Your task to perform on an android device: allow cookies in the chrome app Image 0: 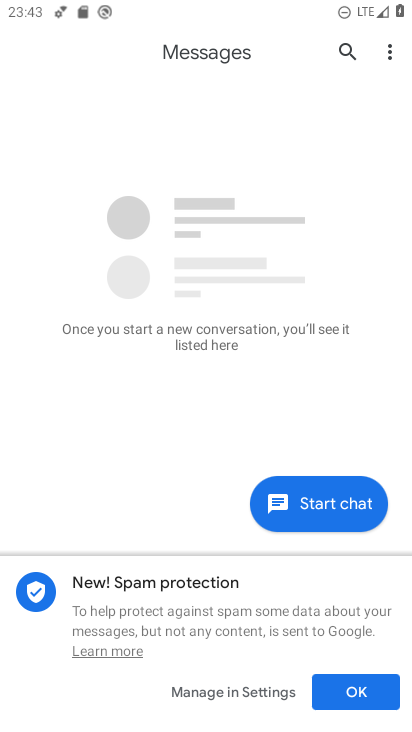
Step 0: press home button
Your task to perform on an android device: allow cookies in the chrome app Image 1: 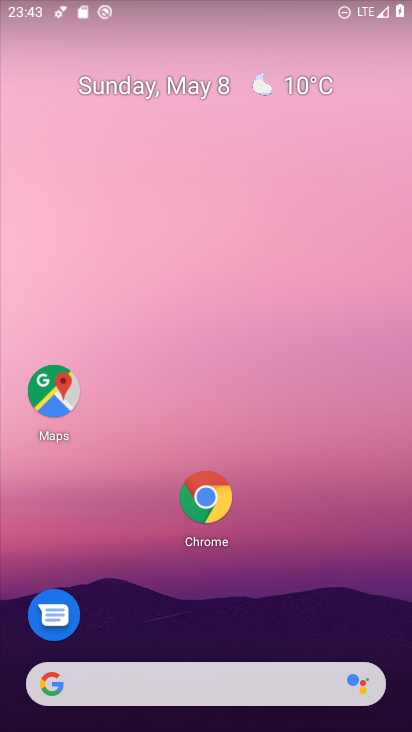
Step 1: drag from (349, 582) to (255, 72)
Your task to perform on an android device: allow cookies in the chrome app Image 2: 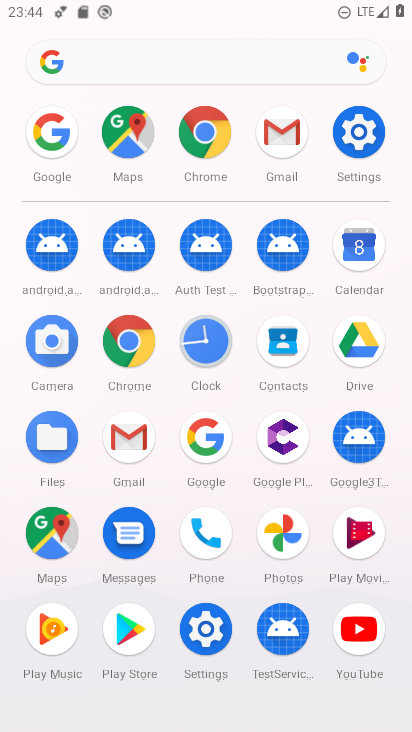
Step 2: click (208, 137)
Your task to perform on an android device: allow cookies in the chrome app Image 3: 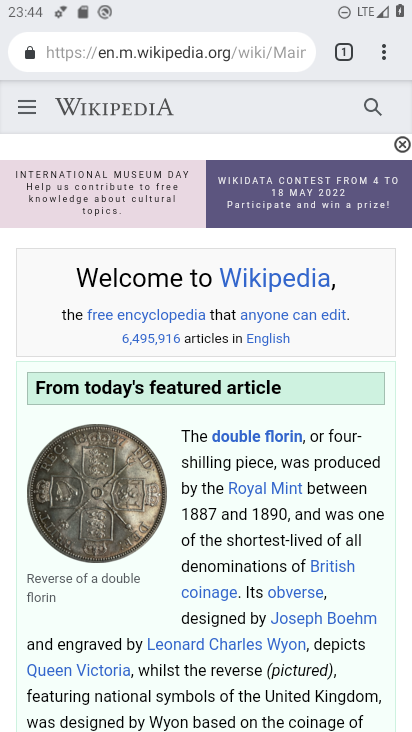
Step 3: drag from (376, 49) to (195, 635)
Your task to perform on an android device: allow cookies in the chrome app Image 4: 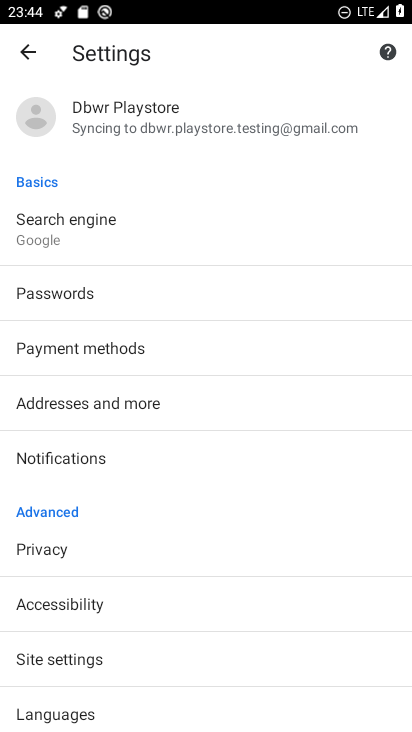
Step 4: click (101, 654)
Your task to perform on an android device: allow cookies in the chrome app Image 5: 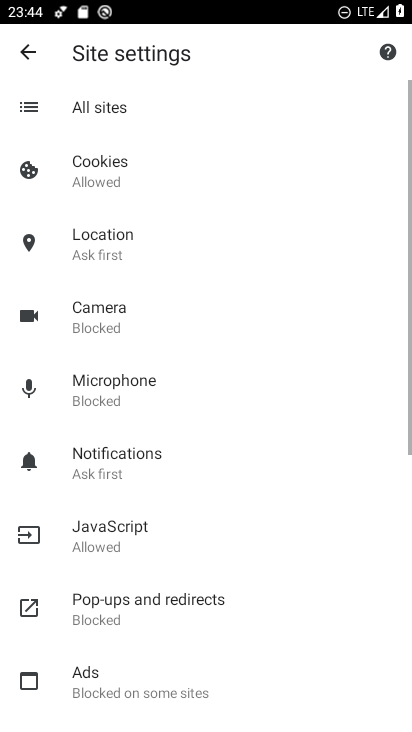
Step 5: click (146, 176)
Your task to perform on an android device: allow cookies in the chrome app Image 6: 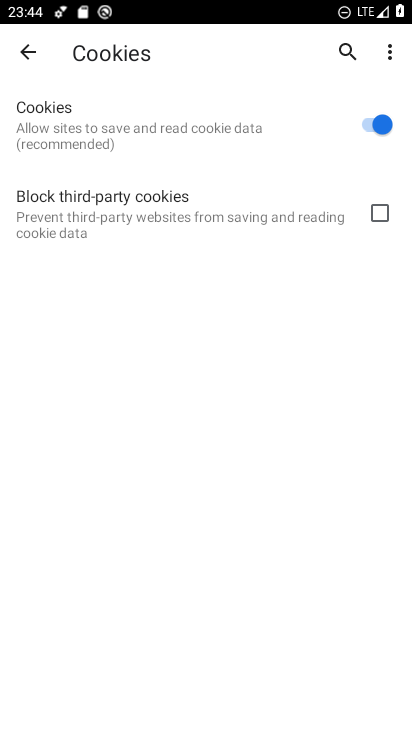
Step 6: task complete